Your task to perform on an android device: turn off sleep mode Image 0: 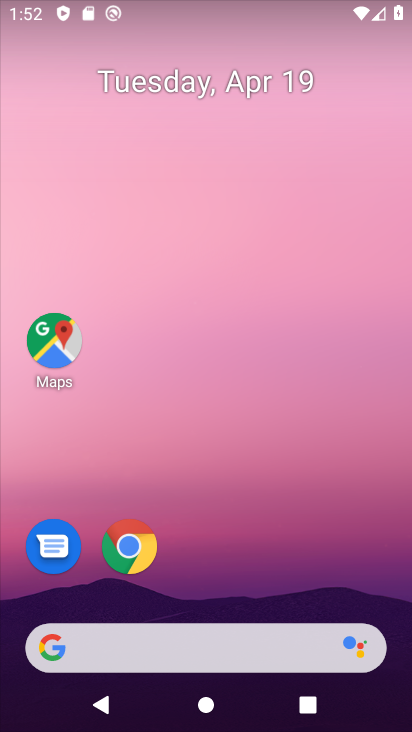
Step 0: drag from (198, 609) to (219, 120)
Your task to perform on an android device: turn off sleep mode Image 1: 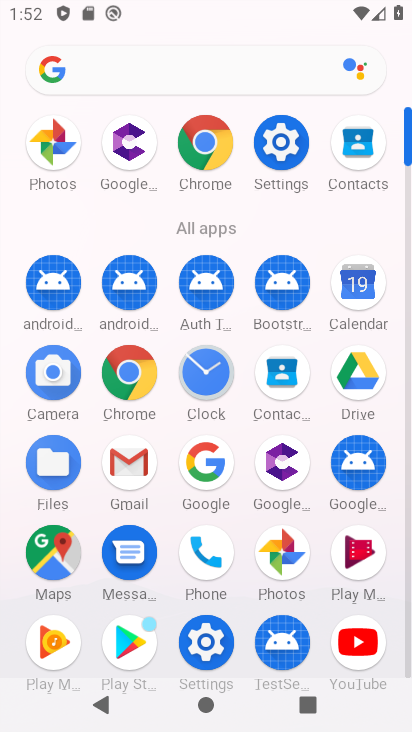
Step 1: click (216, 640)
Your task to perform on an android device: turn off sleep mode Image 2: 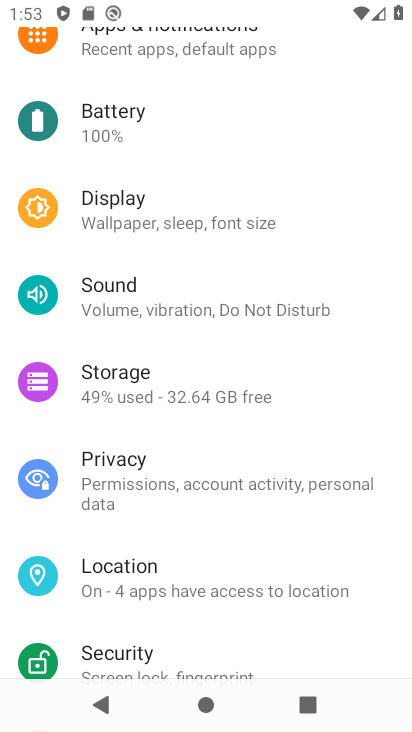
Step 2: click (125, 217)
Your task to perform on an android device: turn off sleep mode Image 3: 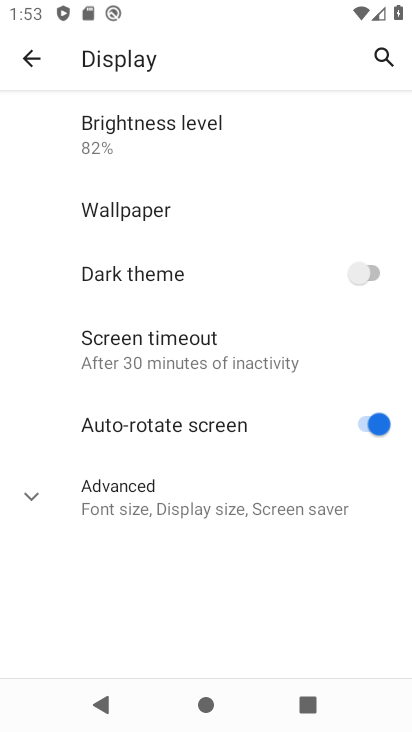
Step 3: click (155, 488)
Your task to perform on an android device: turn off sleep mode Image 4: 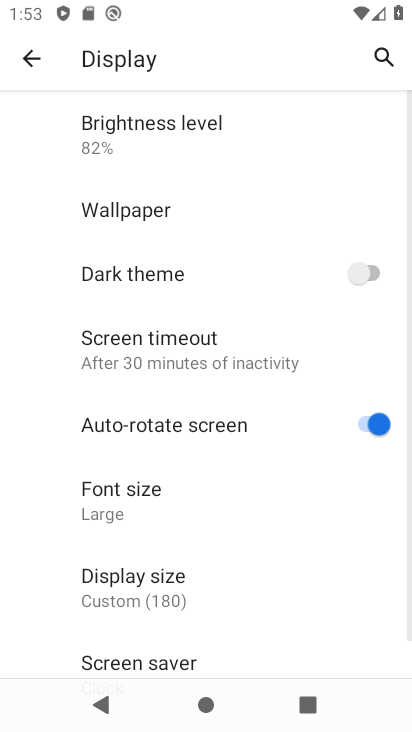
Step 4: task complete